Your task to perform on an android device: Open accessibility settings Image 0: 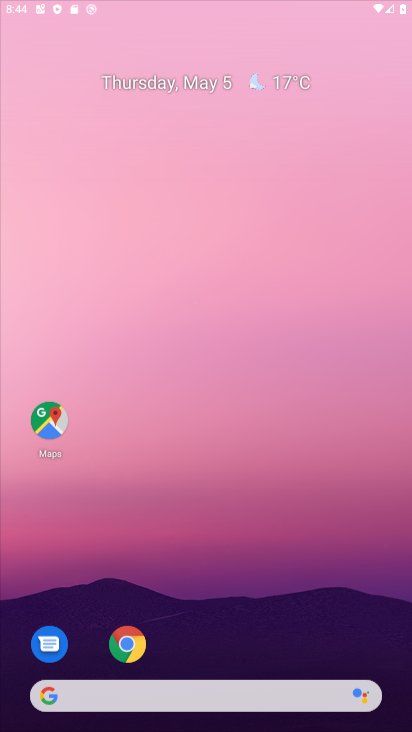
Step 0: click (131, 641)
Your task to perform on an android device: Open accessibility settings Image 1: 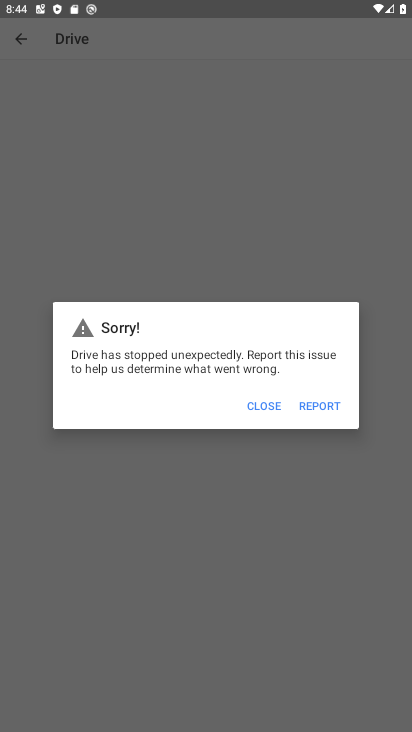
Step 1: press home button
Your task to perform on an android device: Open accessibility settings Image 2: 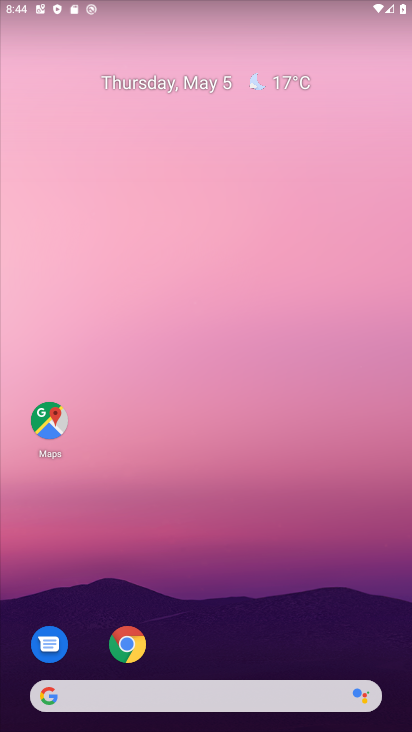
Step 2: drag from (221, 643) to (215, 161)
Your task to perform on an android device: Open accessibility settings Image 3: 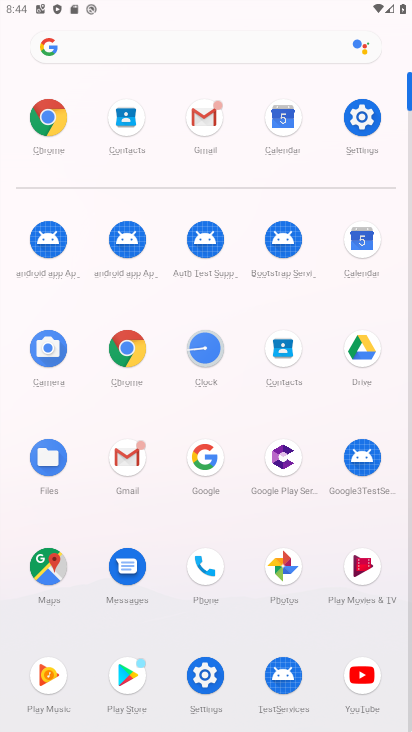
Step 3: click (52, 119)
Your task to perform on an android device: Open accessibility settings Image 4: 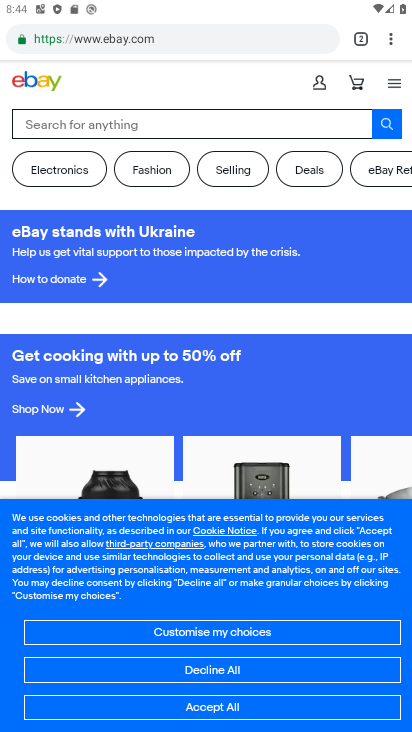
Step 4: drag from (393, 49) to (296, 468)
Your task to perform on an android device: Open accessibility settings Image 5: 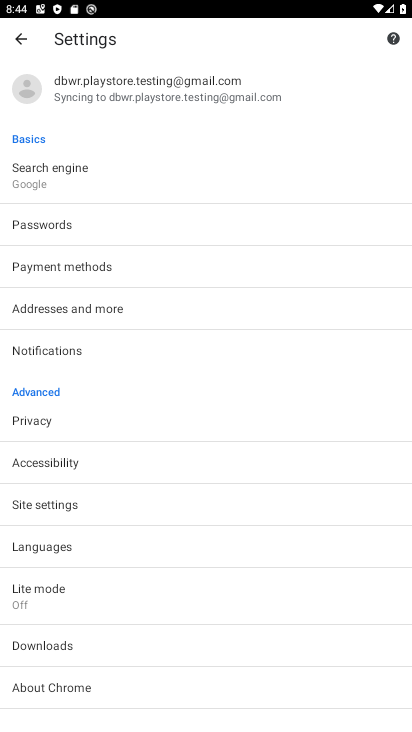
Step 5: click (147, 461)
Your task to perform on an android device: Open accessibility settings Image 6: 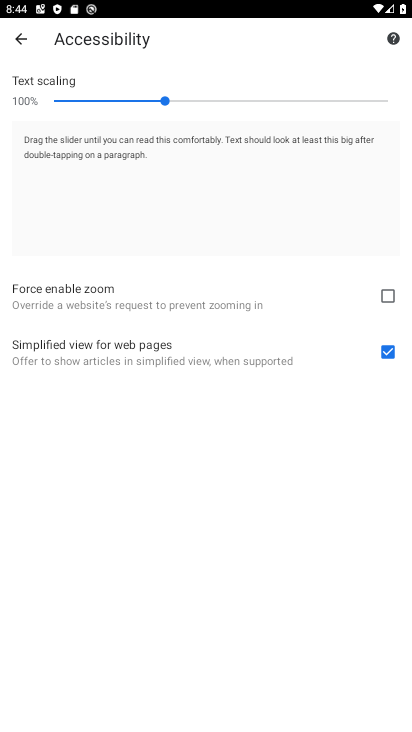
Step 6: task complete